Your task to perform on an android device: turn on notifications settings in the gmail app Image 0: 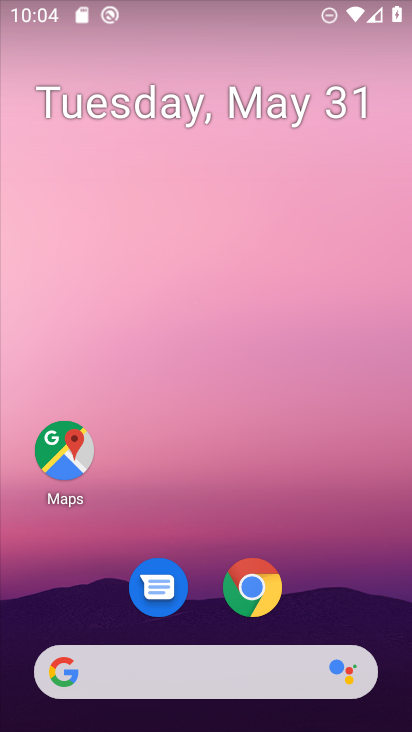
Step 0: press home button
Your task to perform on an android device: turn on notifications settings in the gmail app Image 1: 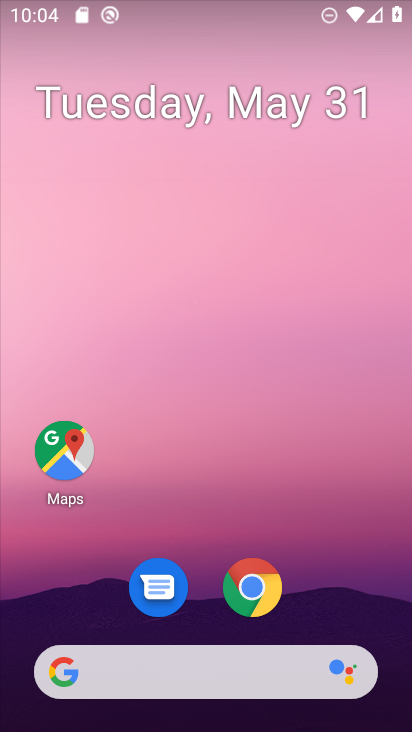
Step 1: drag from (201, 622) to (248, 2)
Your task to perform on an android device: turn on notifications settings in the gmail app Image 2: 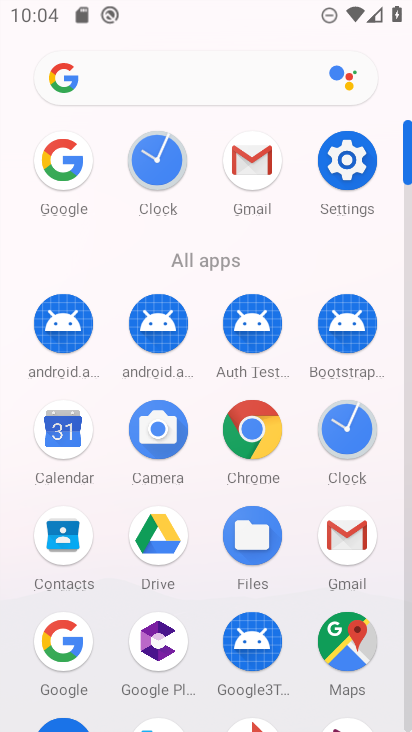
Step 2: click (250, 149)
Your task to perform on an android device: turn on notifications settings in the gmail app Image 3: 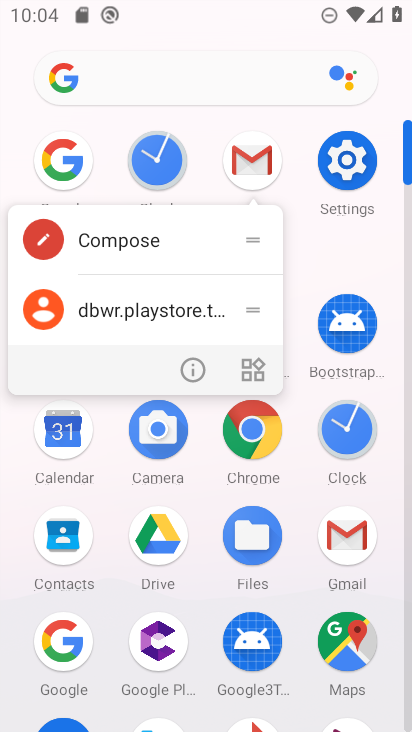
Step 3: click (249, 152)
Your task to perform on an android device: turn on notifications settings in the gmail app Image 4: 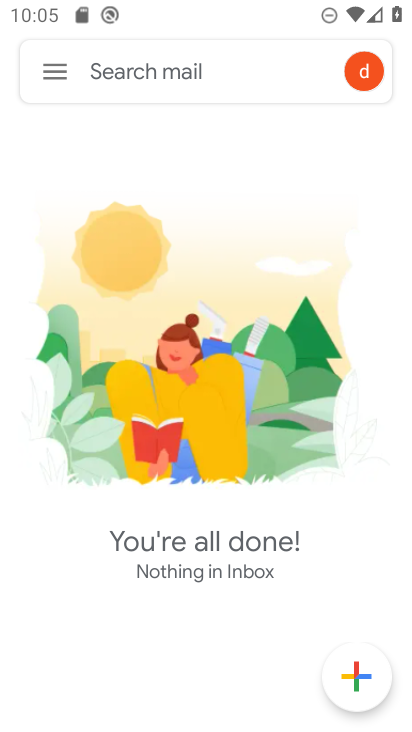
Step 4: click (48, 64)
Your task to perform on an android device: turn on notifications settings in the gmail app Image 5: 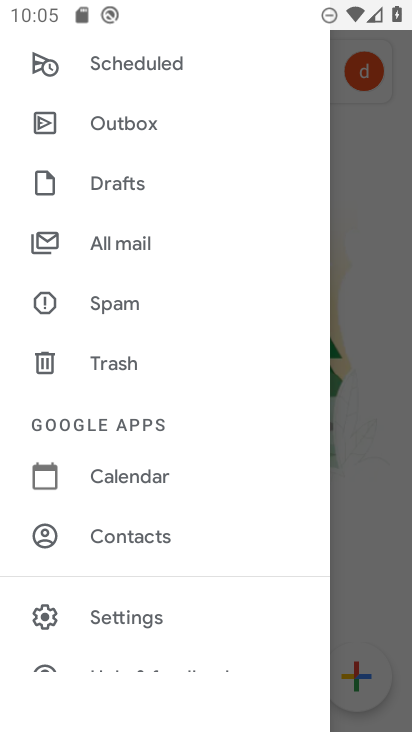
Step 5: click (76, 610)
Your task to perform on an android device: turn on notifications settings in the gmail app Image 6: 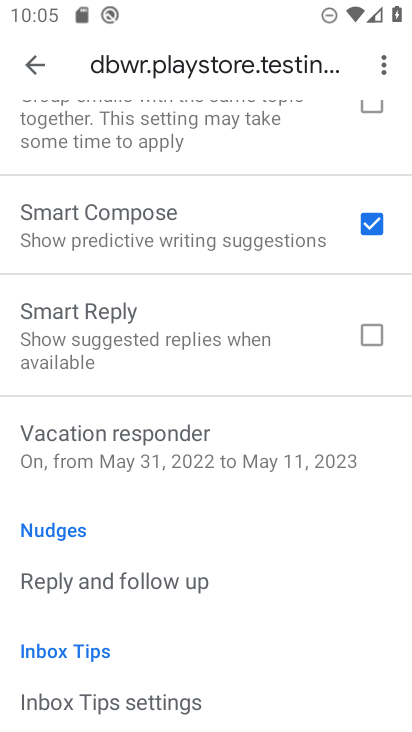
Step 6: click (39, 69)
Your task to perform on an android device: turn on notifications settings in the gmail app Image 7: 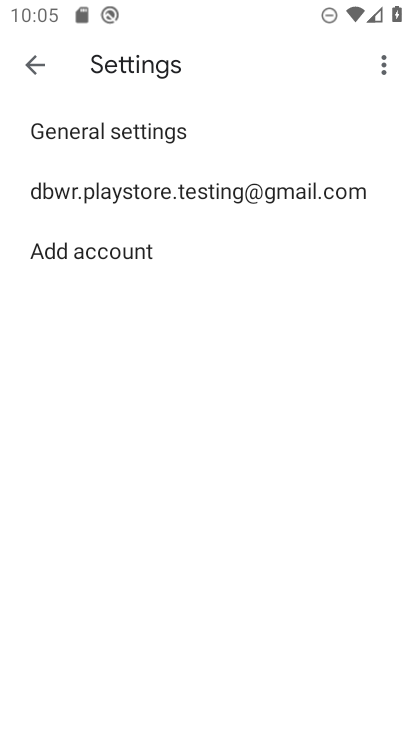
Step 7: click (190, 124)
Your task to perform on an android device: turn on notifications settings in the gmail app Image 8: 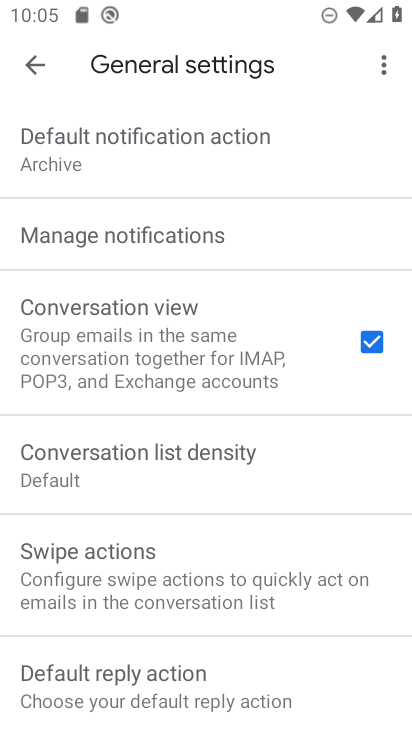
Step 8: click (254, 233)
Your task to perform on an android device: turn on notifications settings in the gmail app Image 9: 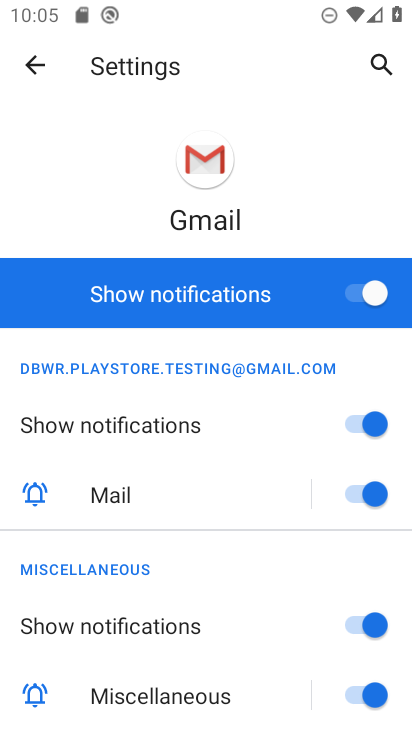
Step 9: click (355, 287)
Your task to perform on an android device: turn on notifications settings in the gmail app Image 10: 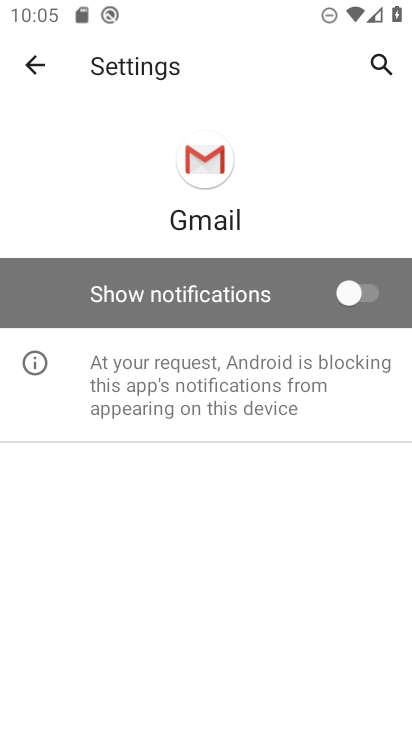
Step 10: click (367, 287)
Your task to perform on an android device: turn on notifications settings in the gmail app Image 11: 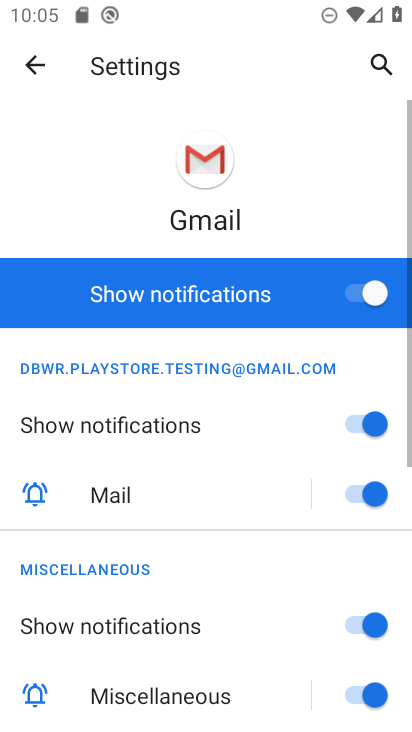
Step 11: task complete